Your task to perform on an android device: turn off translation in the chrome app Image 0: 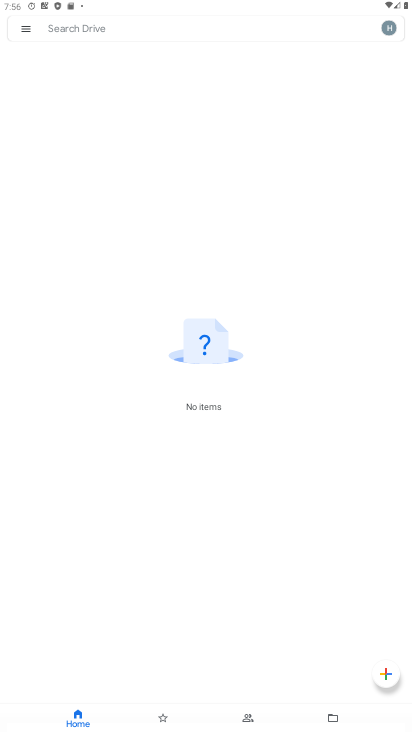
Step 0: press home button
Your task to perform on an android device: turn off translation in the chrome app Image 1: 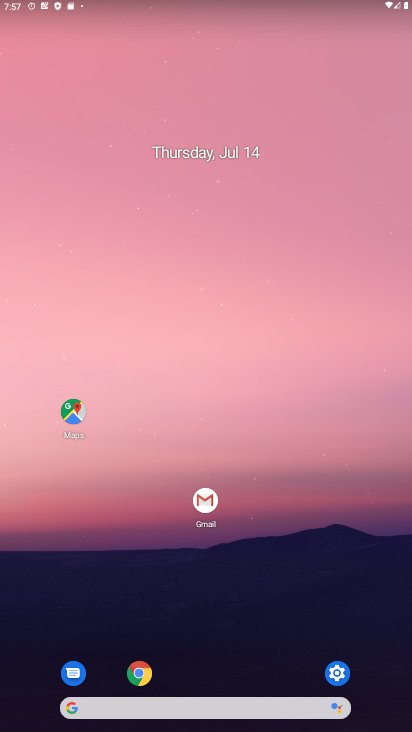
Step 1: click (140, 663)
Your task to perform on an android device: turn off translation in the chrome app Image 2: 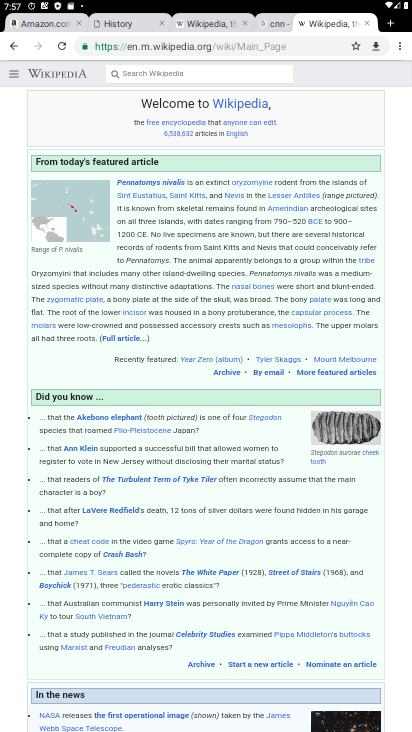
Step 2: click (399, 46)
Your task to perform on an android device: turn off translation in the chrome app Image 3: 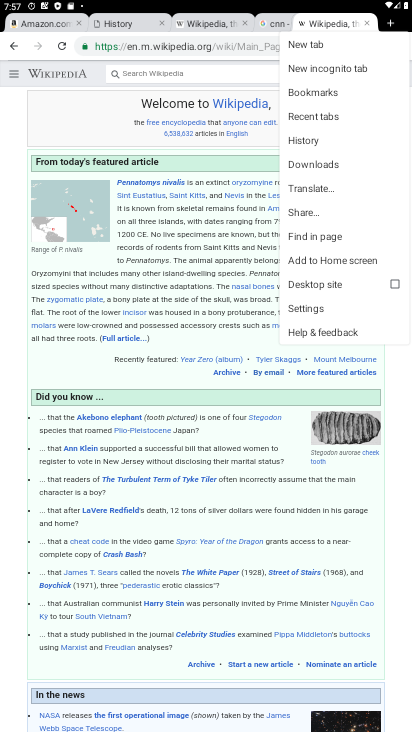
Step 3: click (303, 307)
Your task to perform on an android device: turn off translation in the chrome app Image 4: 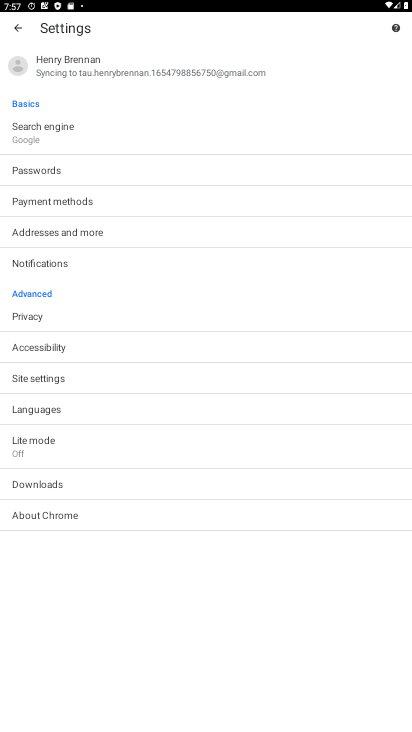
Step 4: click (42, 407)
Your task to perform on an android device: turn off translation in the chrome app Image 5: 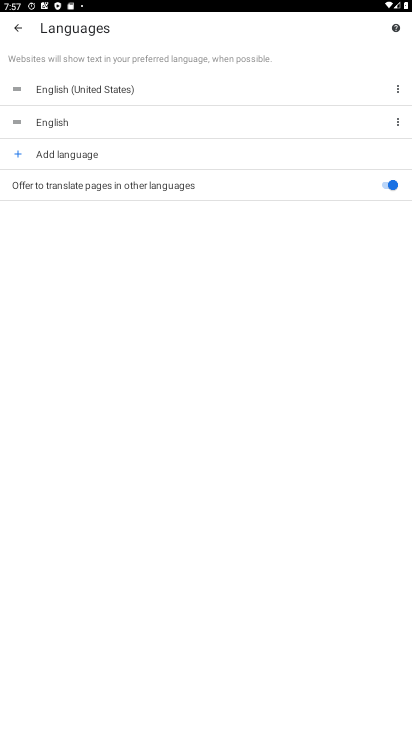
Step 5: click (380, 182)
Your task to perform on an android device: turn off translation in the chrome app Image 6: 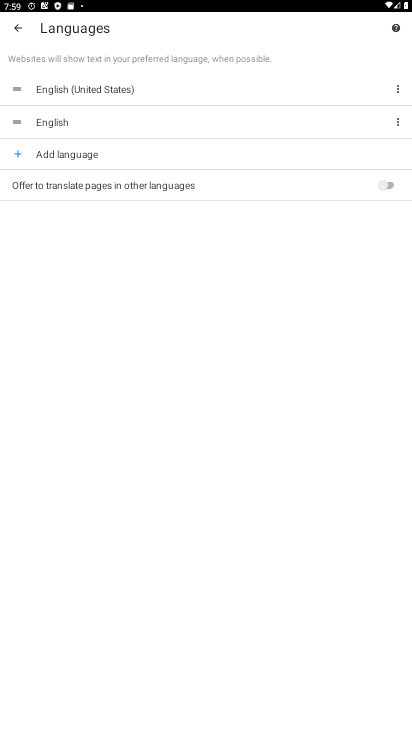
Step 6: task complete